Your task to perform on an android device: see sites visited before in the chrome app Image 0: 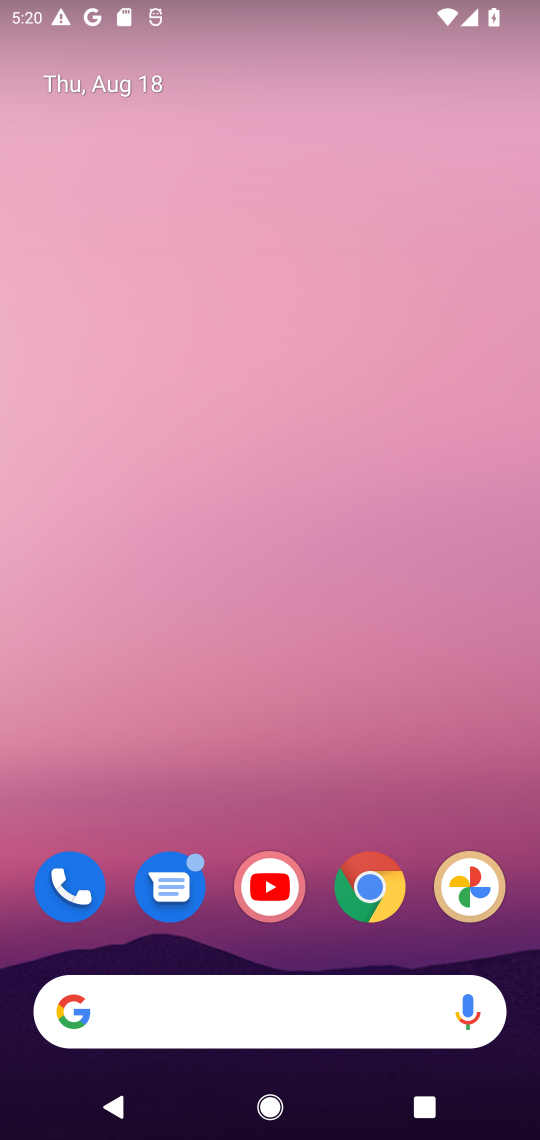
Step 0: drag from (255, 820) to (306, 105)
Your task to perform on an android device: see sites visited before in the chrome app Image 1: 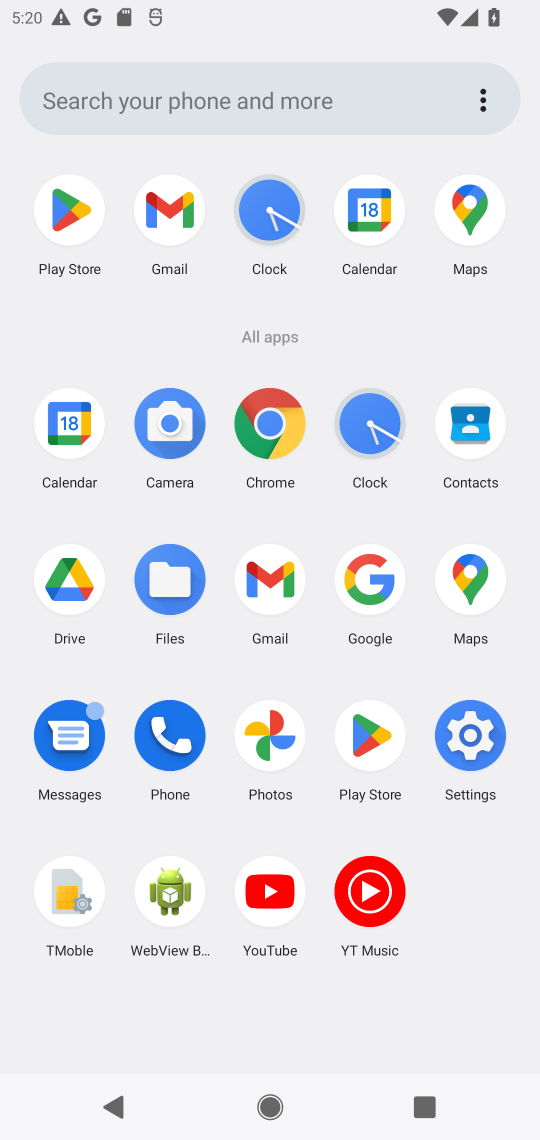
Step 1: click (254, 427)
Your task to perform on an android device: see sites visited before in the chrome app Image 2: 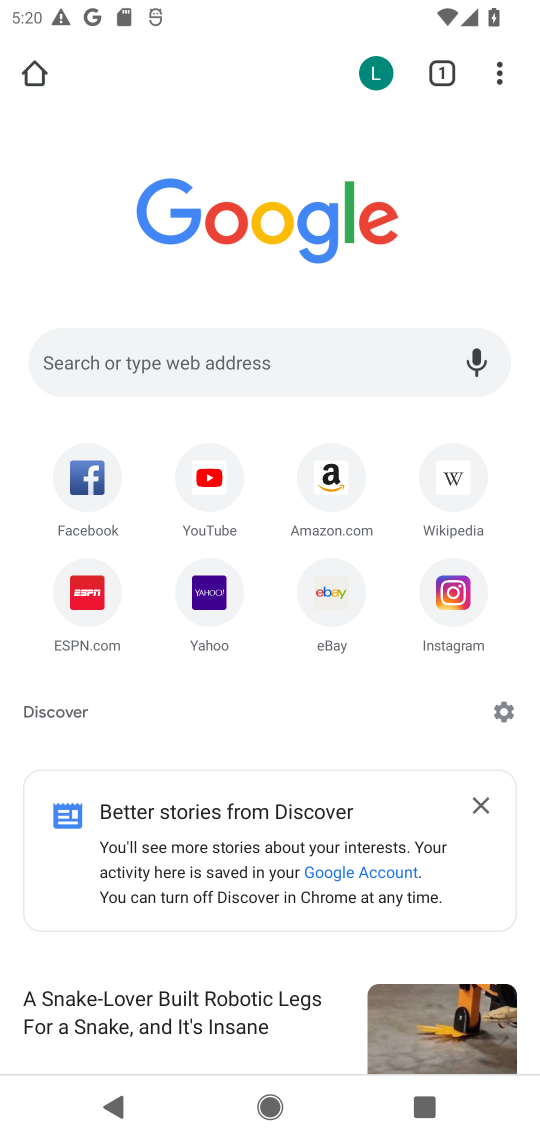
Step 2: task complete